Your task to perform on an android device: turn off location Image 0: 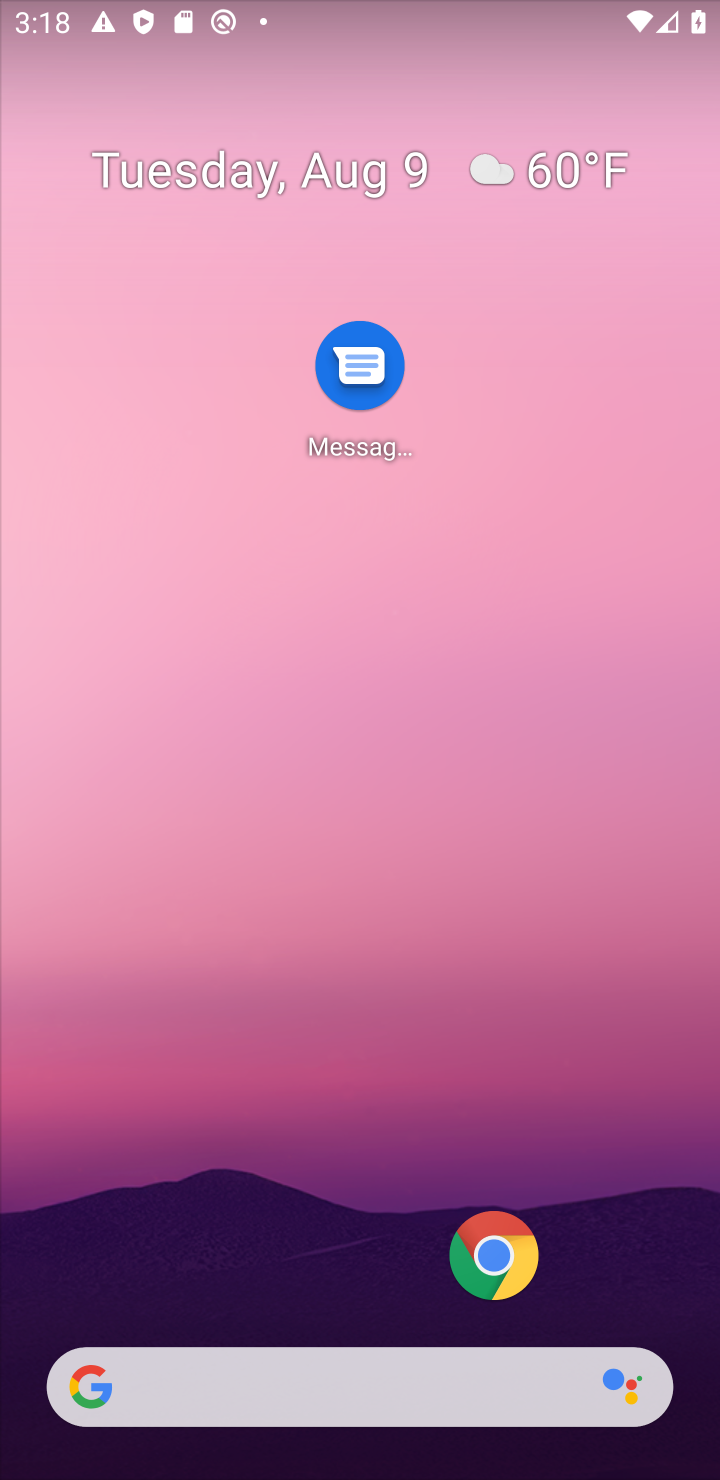
Step 0: drag from (265, 1286) to (438, 637)
Your task to perform on an android device: turn off location Image 1: 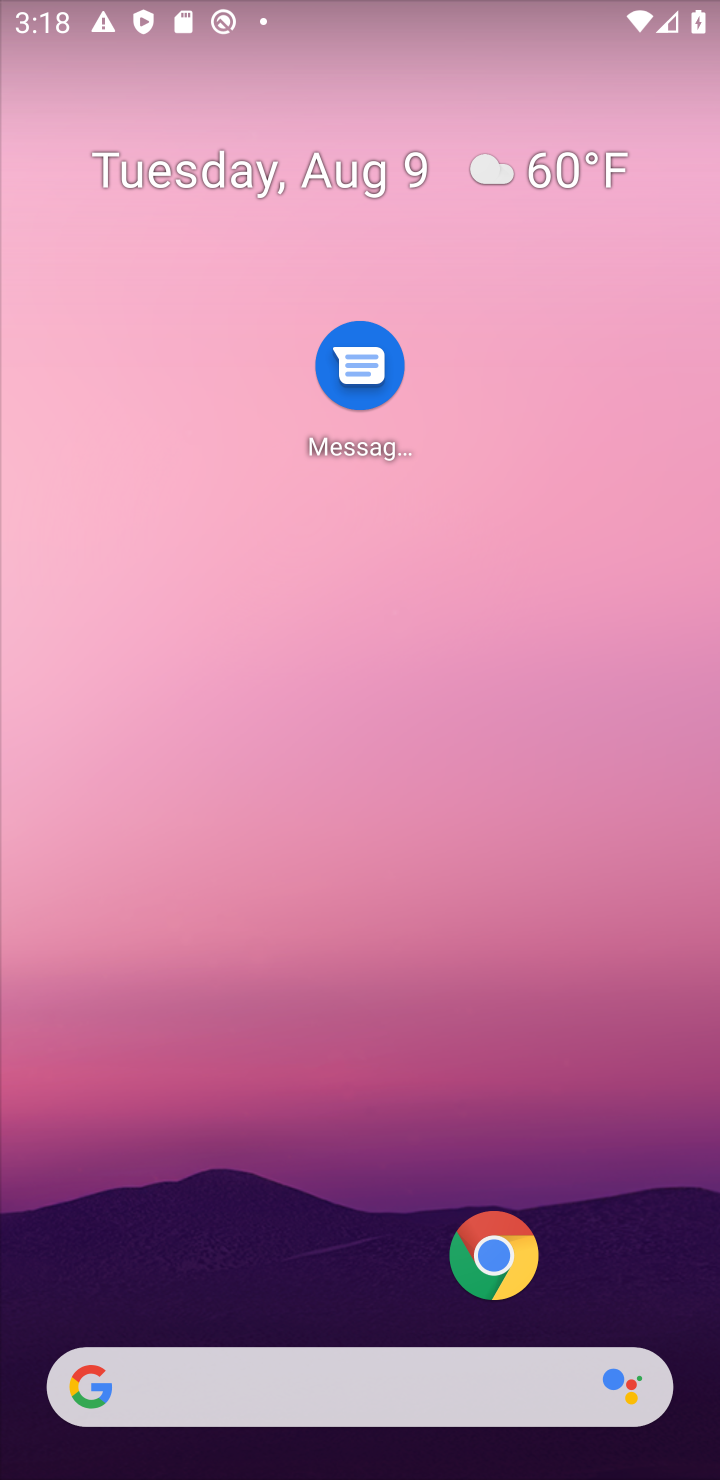
Step 1: drag from (341, 1351) to (344, 622)
Your task to perform on an android device: turn off location Image 2: 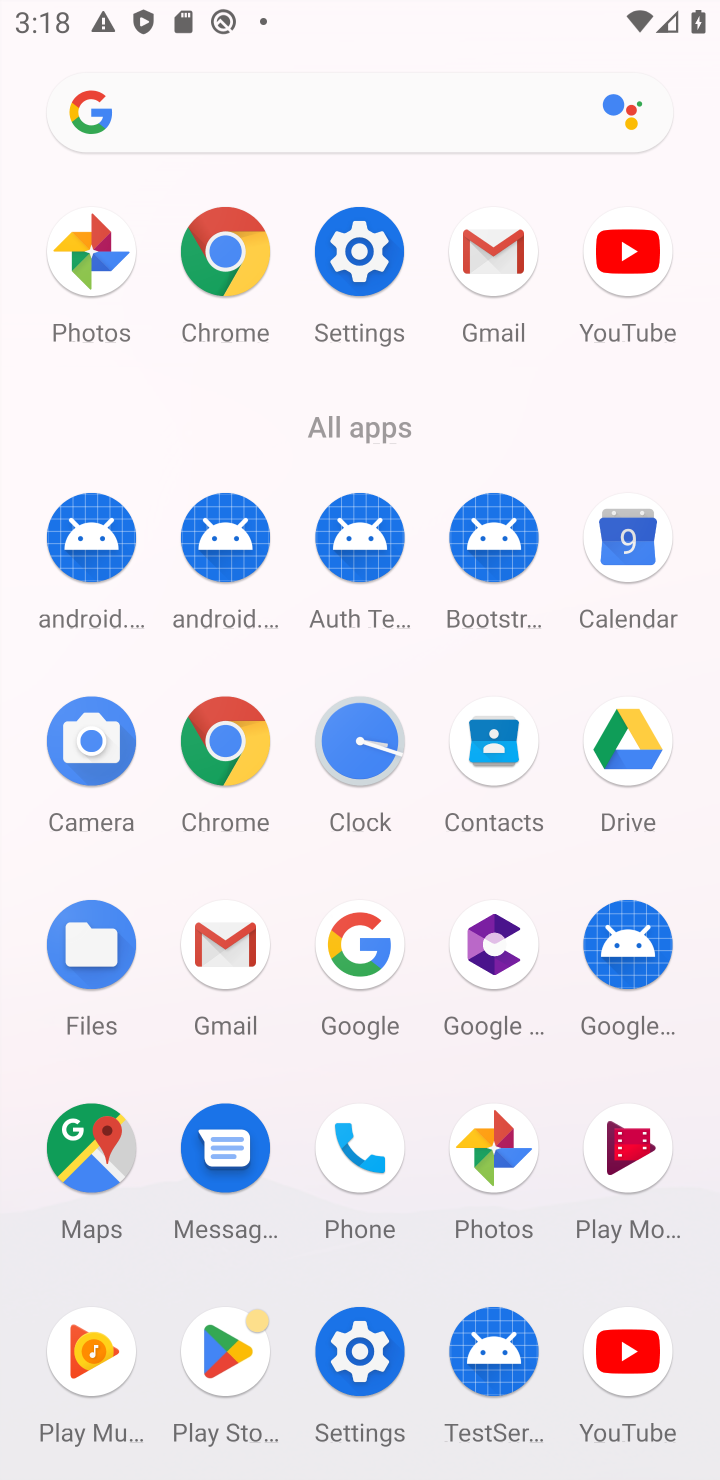
Step 2: click (338, 254)
Your task to perform on an android device: turn off location Image 3: 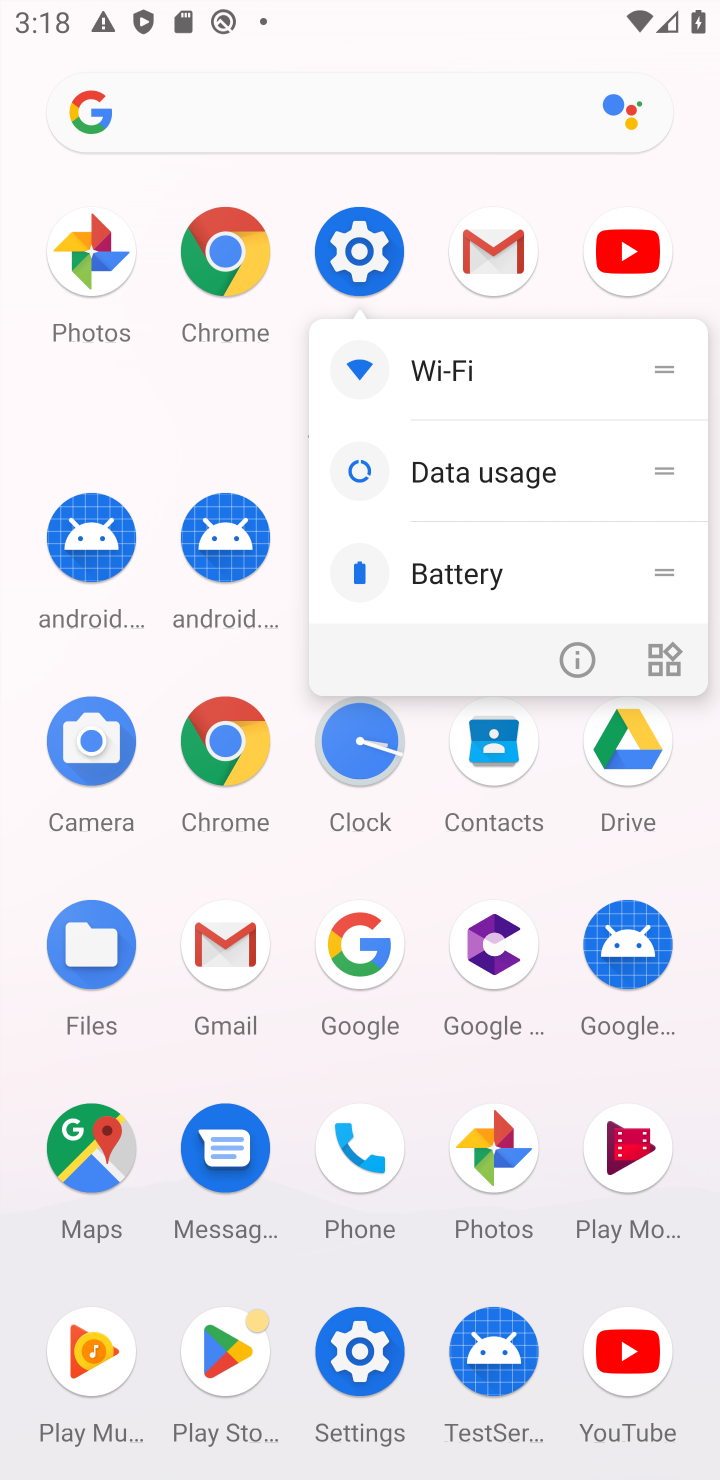
Step 3: click (396, 250)
Your task to perform on an android device: turn off location Image 4: 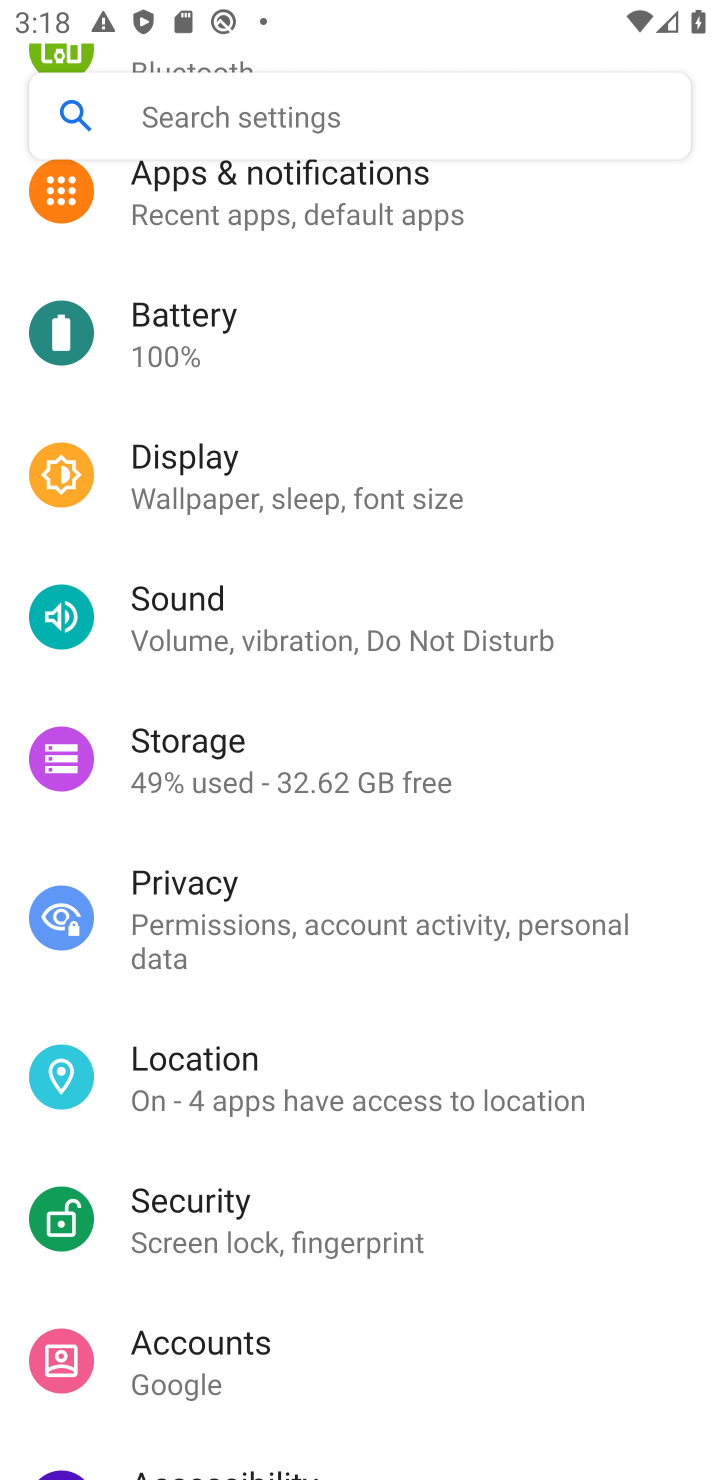
Step 4: click (232, 1068)
Your task to perform on an android device: turn off location Image 5: 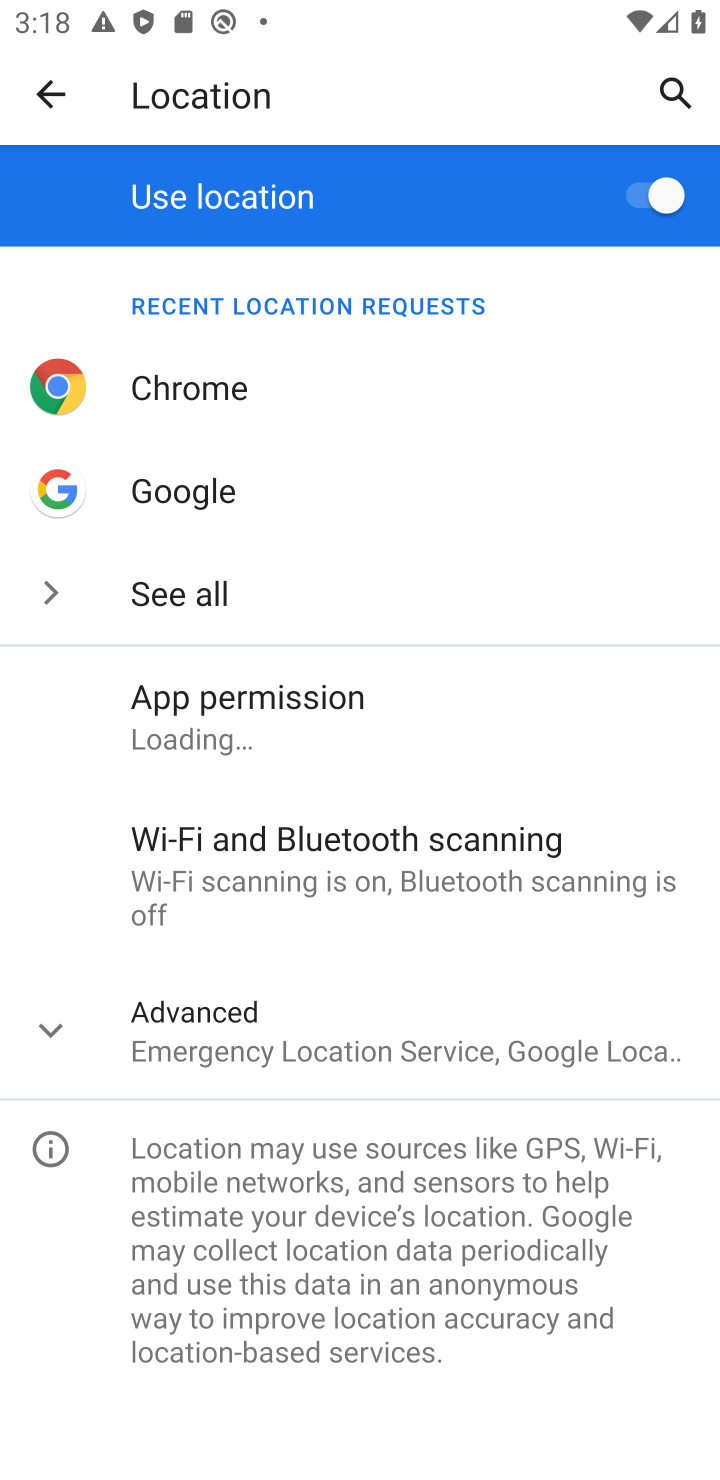
Step 5: click (636, 202)
Your task to perform on an android device: turn off location Image 6: 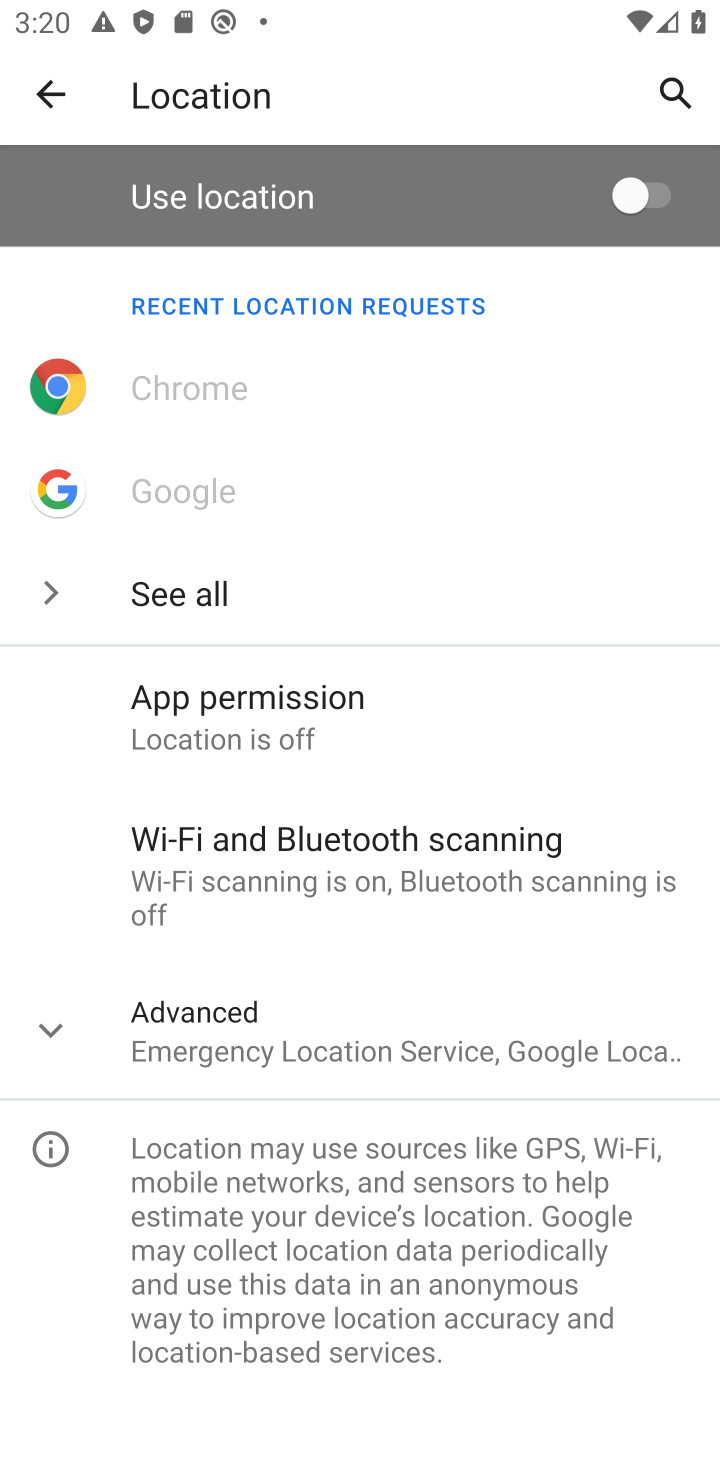
Step 6: task complete